Your task to perform on an android device: Go to calendar. Show me events next week Image 0: 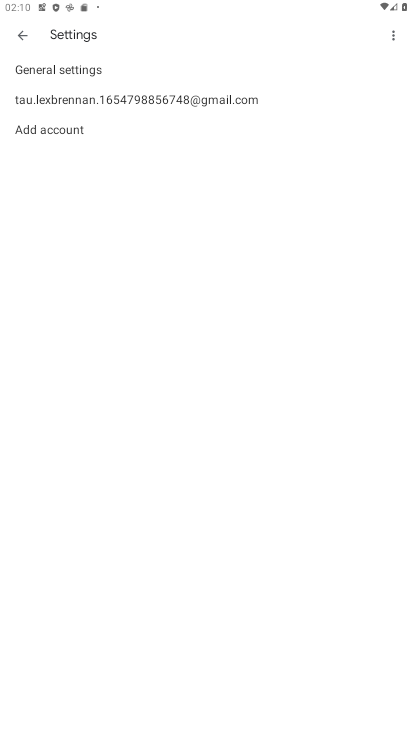
Step 0: press home button
Your task to perform on an android device: Go to calendar. Show me events next week Image 1: 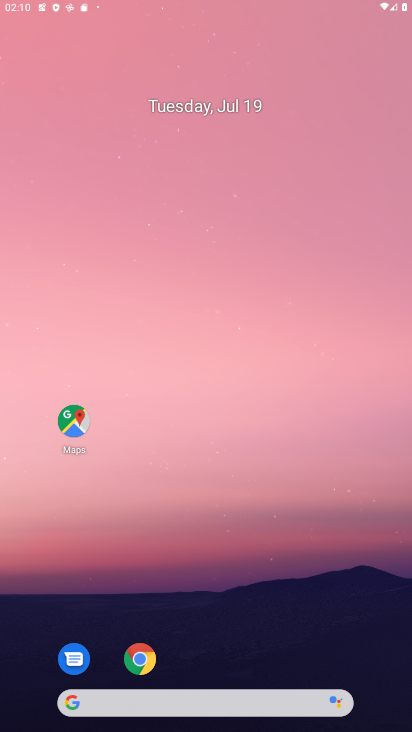
Step 1: drag from (323, 651) to (356, 81)
Your task to perform on an android device: Go to calendar. Show me events next week Image 2: 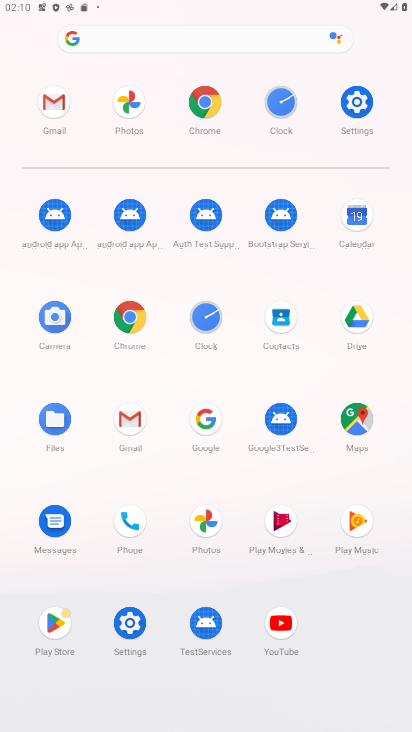
Step 2: click (369, 212)
Your task to perform on an android device: Go to calendar. Show me events next week Image 3: 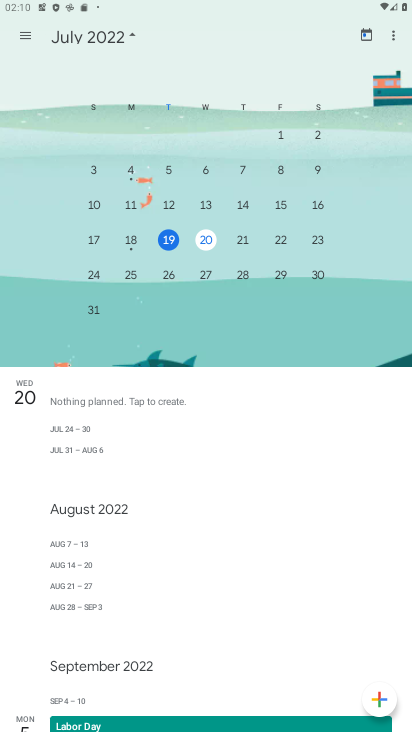
Step 3: click (206, 280)
Your task to perform on an android device: Go to calendar. Show me events next week Image 4: 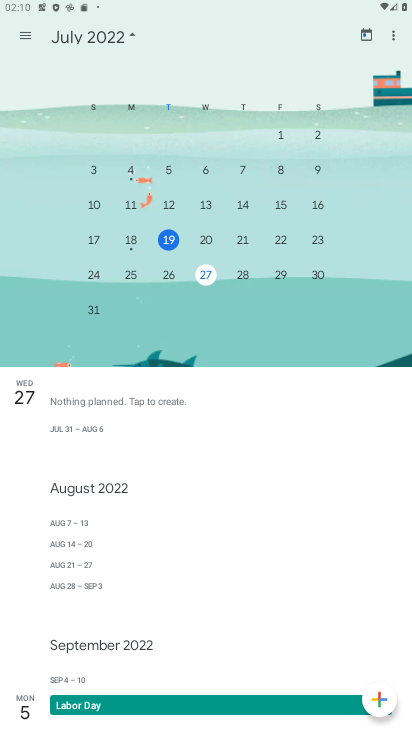
Step 4: task complete